Your task to perform on an android device: open app "Truecaller" Image 0: 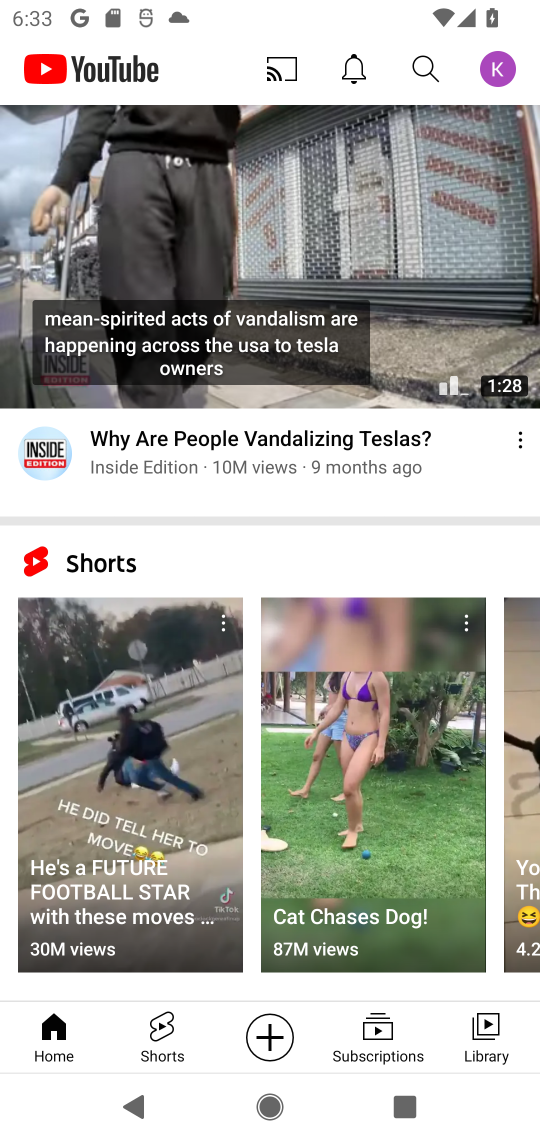
Step 0: press home button
Your task to perform on an android device: open app "Truecaller" Image 1: 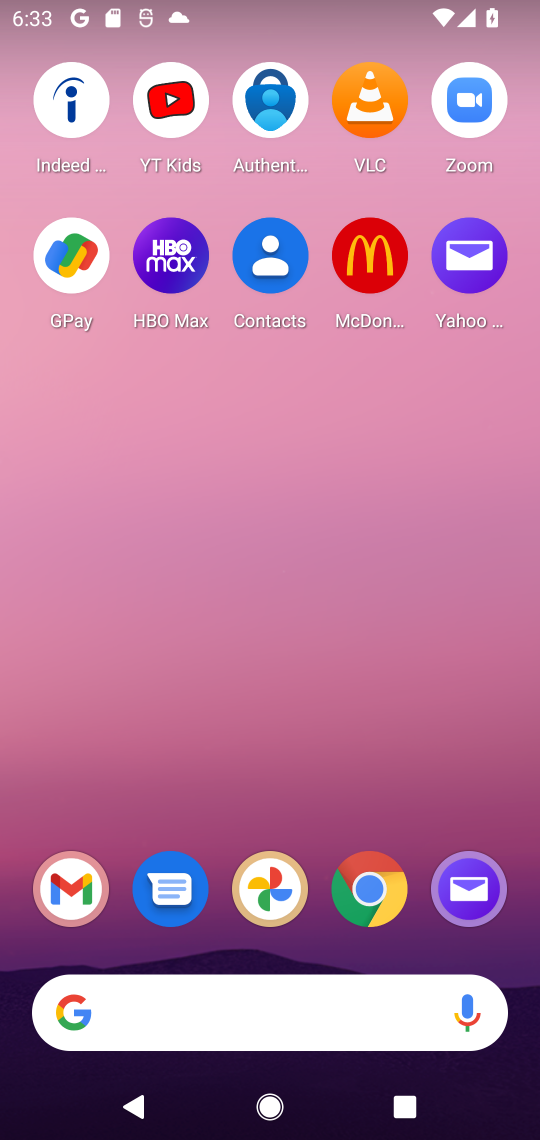
Step 1: press home button
Your task to perform on an android device: open app "Truecaller" Image 2: 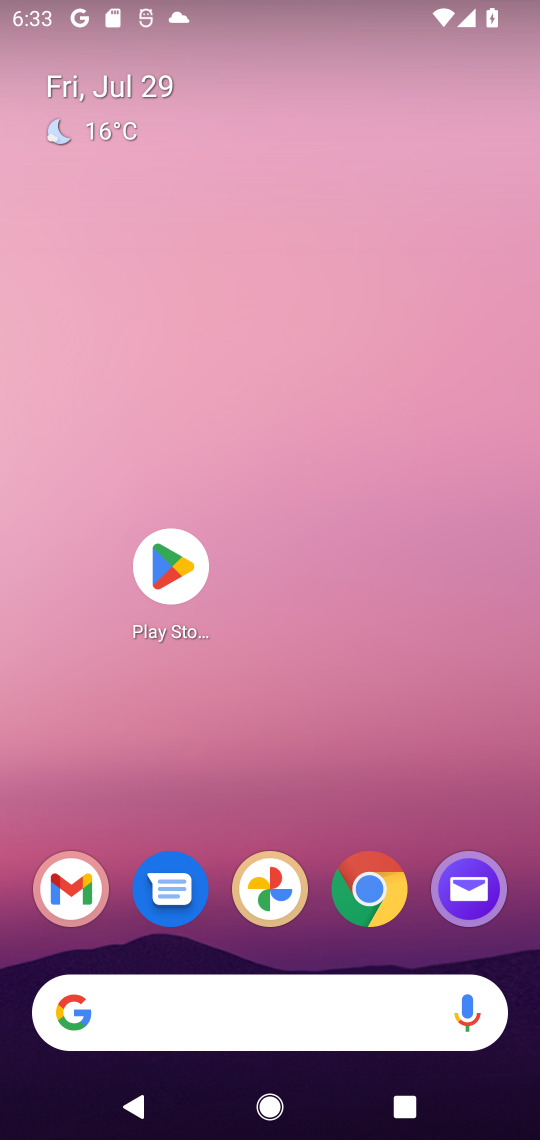
Step 2: click (164, 565)
Your task to perform on an android device: open app "Truecaller" Image 3: 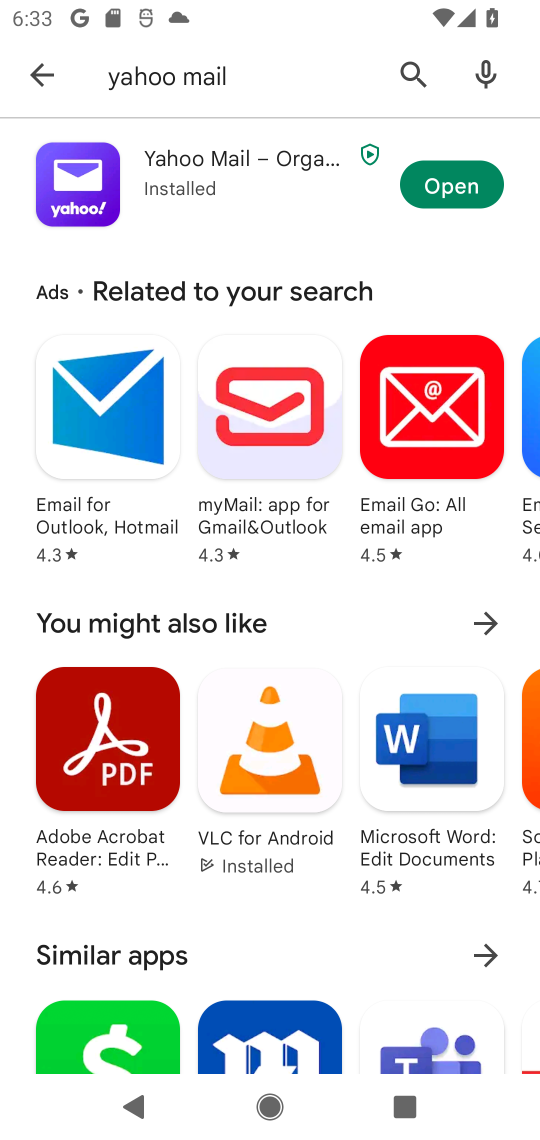
Step 3: click (410, 59)
Your task to perform on an android device: open app "Truecaller" Image 4: 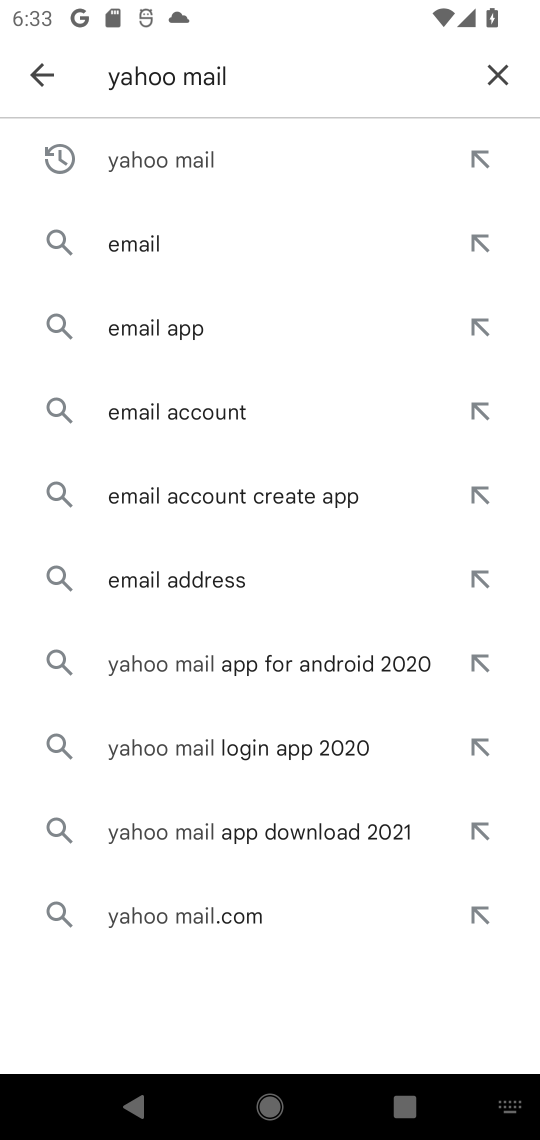
Step 4: click (501, 70)
Your task to perform on an android device: open app "Truecaller" Image 5: 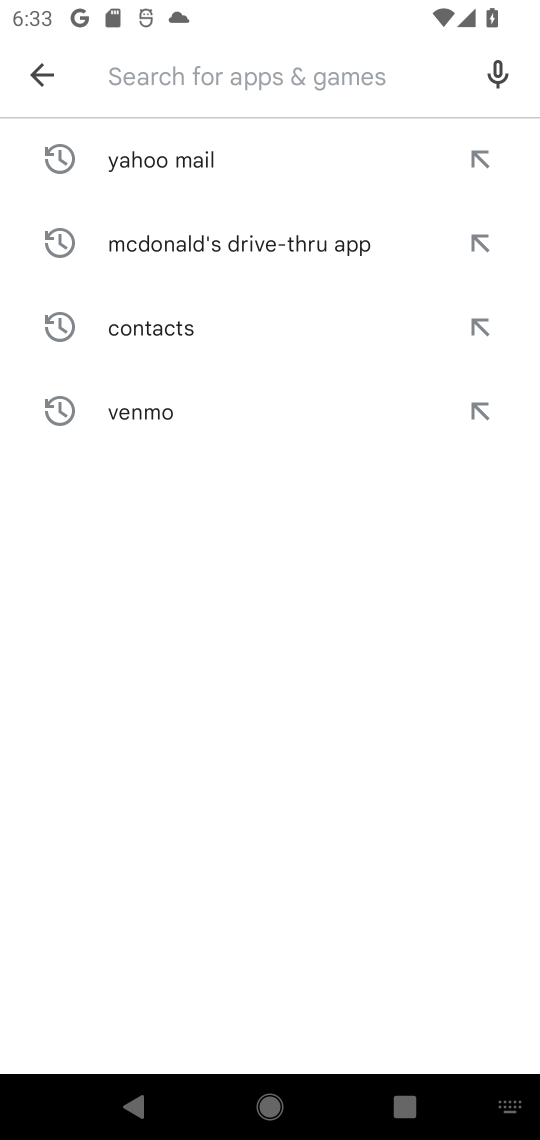
Step 5: type "Truecaller"
Your task to perform on an android device: open app "Truecaller" Image 6: 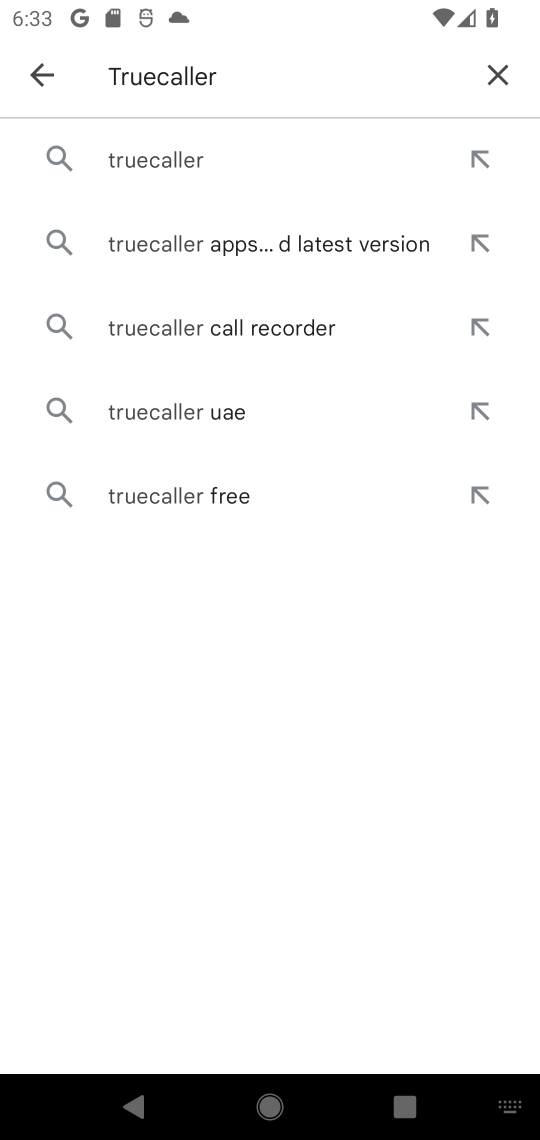
Step 6: click (176, 161)
Your task to perform on an android device: open app "Truecaller" Image 7: 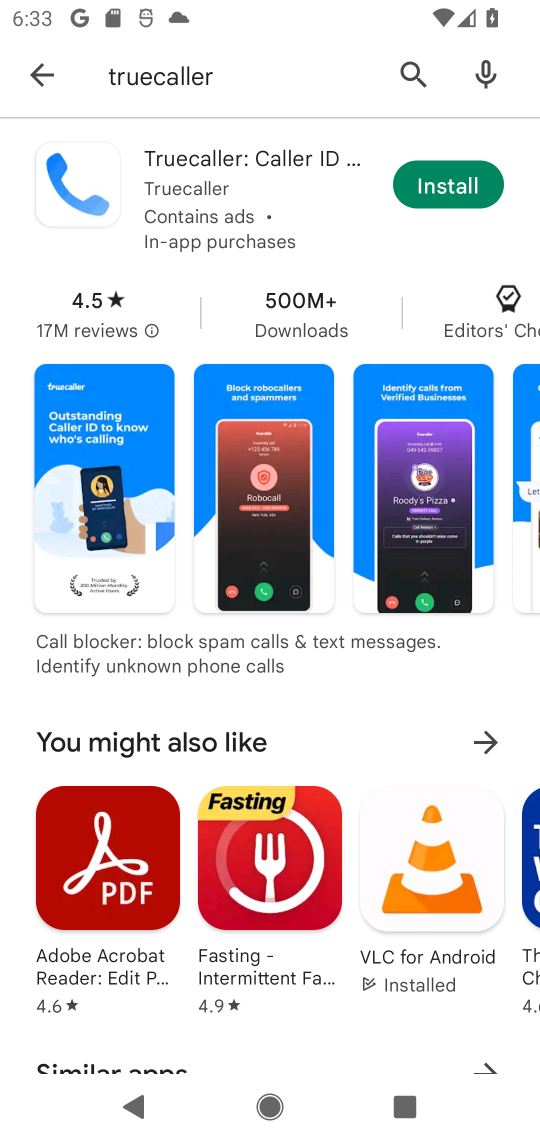
Step 7: task complete